Your task to perform on an android device: Go to Maps Image 0: 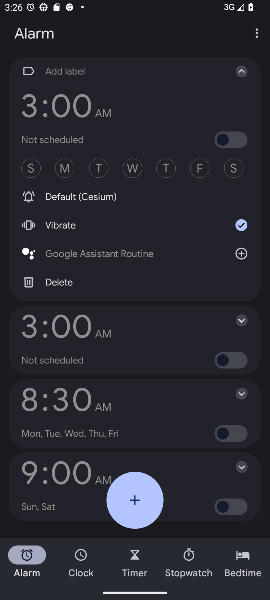
Step 0: press home button
Your task to perform on an android device: Go to Maps Image 1: 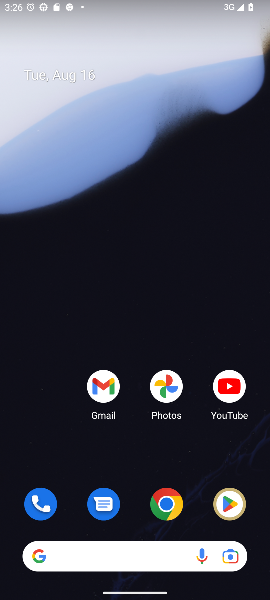
Step 1: drag from (133, 488) to (133, 118)
Your task to perform on an android device: Go to Maps Image 2: 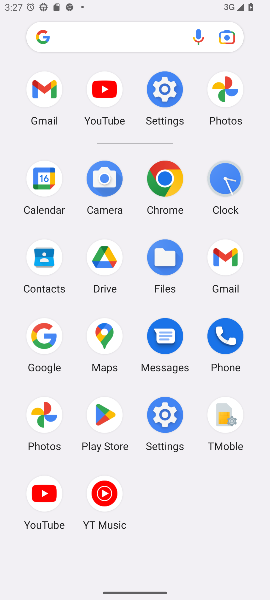
Step 2: click (103, 330)
Your task to perform on an android device: Go to Maps Image 3: 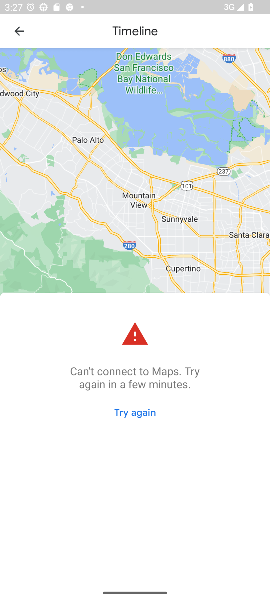
Step 3: click (138, 412)
Your task to perform on an android device: Go to Maps Image 4: 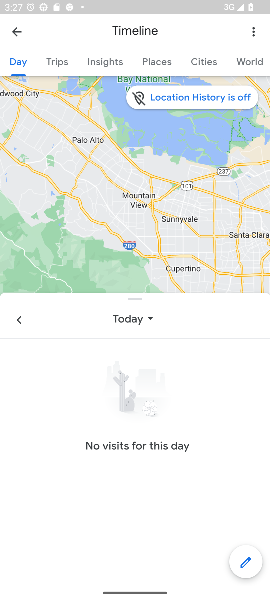
Step 4: click (18, 29)
Your task to perform on an android device: Go to Maps Image 5: 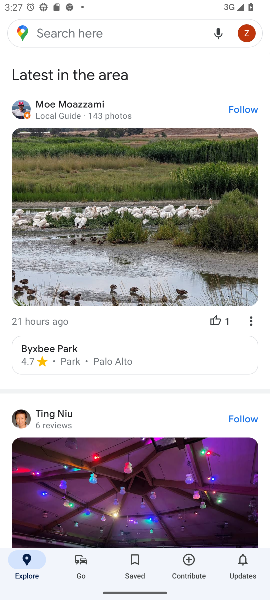
Step 5: task complete